Your task to perform on an android device: Go to battery settings Image 0: 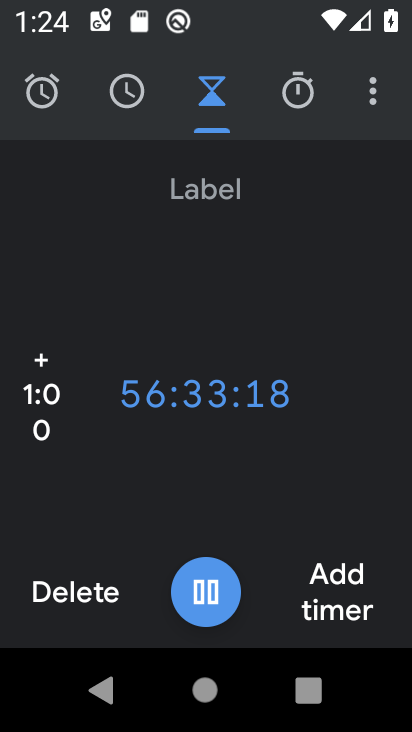
Step 0: press home button
Your task to perform on an android device: Go to battery settings Image 1: 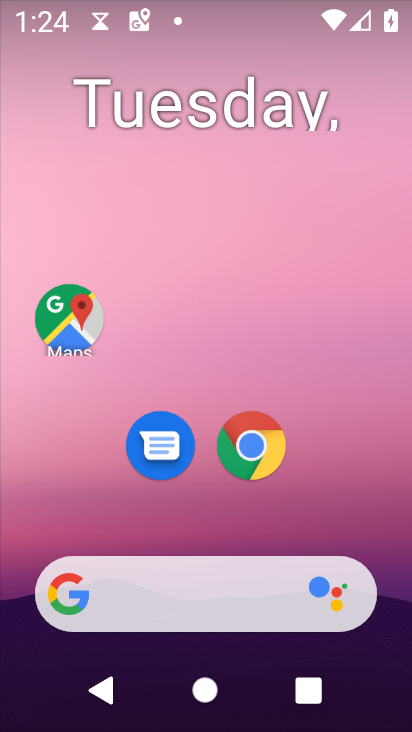
Step 1: drag from (370, 542) to (347, 42)
Your task to perform on an android device: Go to battery settings Image 2: 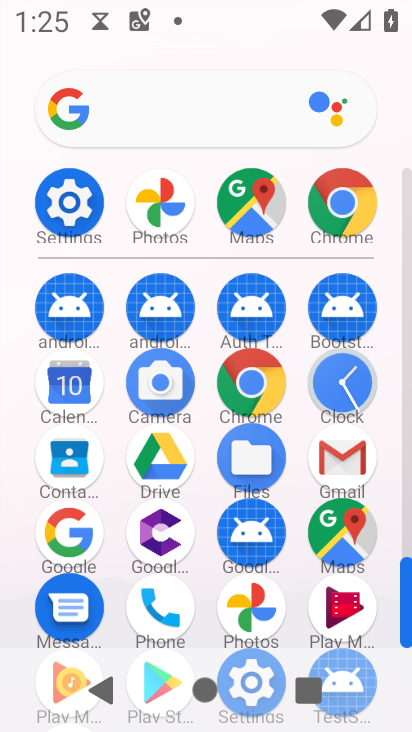
Step 2: click (76, 205)
Your task to perform on an android device: Go to battery settings Image 3: 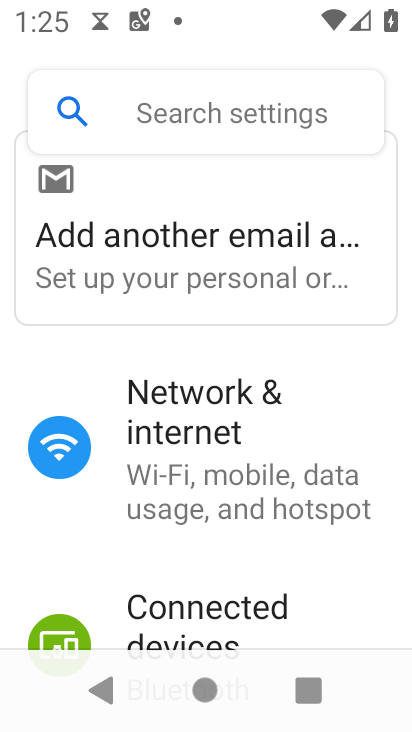
Step 3: drag from (262, 574) to (237, 31)
Your task to perform on an android device: Go to battery settings Image 4: 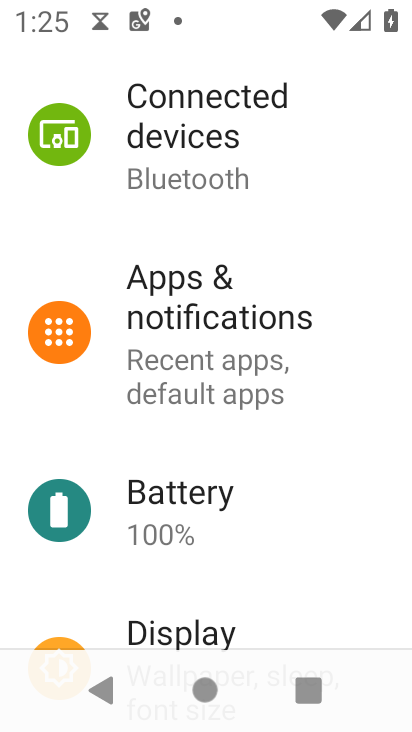
Step 4: click (252, 524)
Your task to perform on an android device: Go to battery settings Image 5: 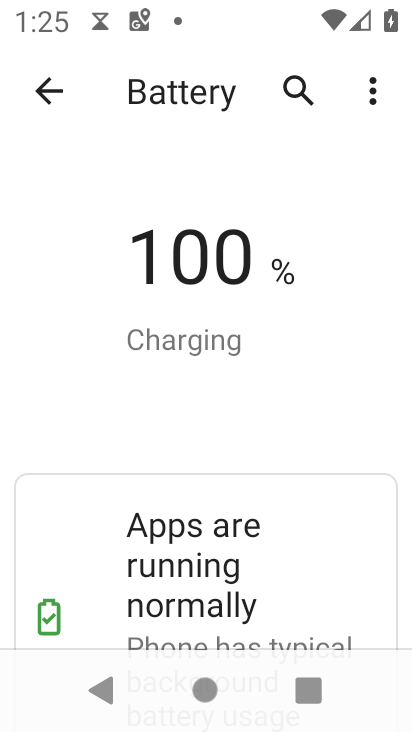
Step 5: click (329, 101)
Your task to perform on an android device: Go to battery settings Image 6: 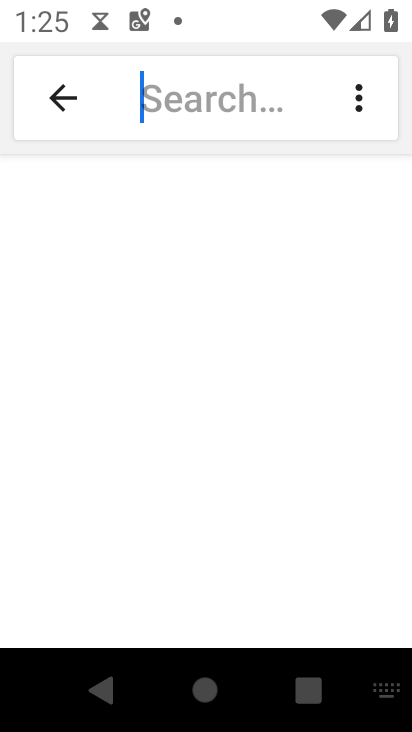
Step 6: task complete